Your task to perform on an android device: change the clock display to digital Image 0: 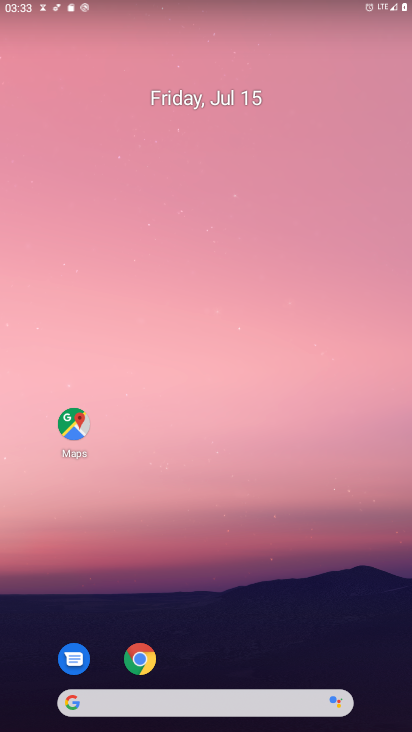
Step 0: drag from (243, 661) to (259, 254)
Your task to perform on an android device: change the clock display to digital Image 1: 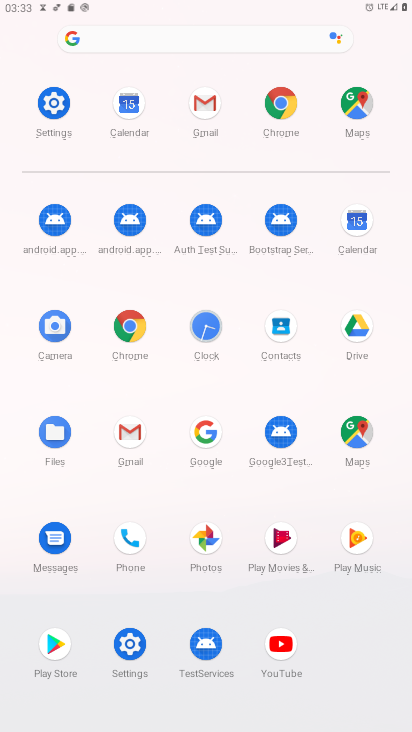
Step 1: click (196, 325)
Your task to perform on an android device: change the clock display to digital Image 2: 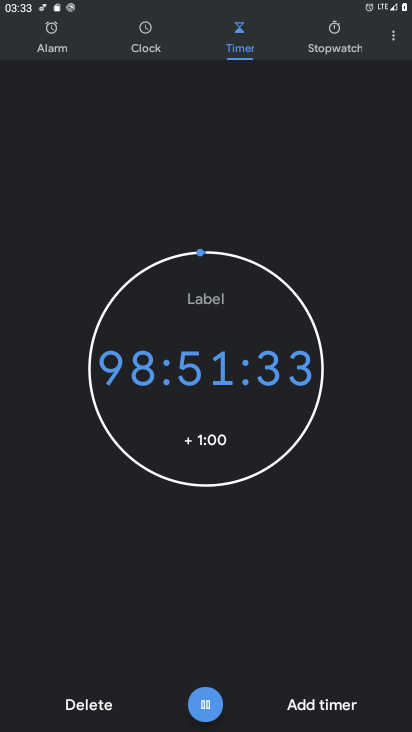
Step 2: click (397, 32)
Your task to perform on an android device: change the clock display to digital Image 3: 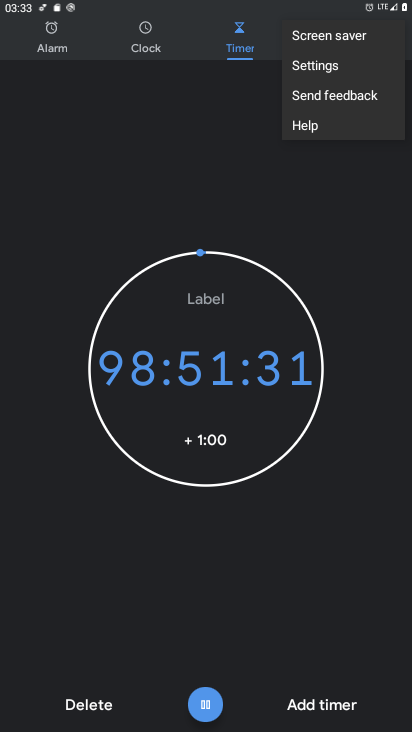
Step 3: click (307, 77)
Your task to perform on an android device: change the clock display to digital Image 4: 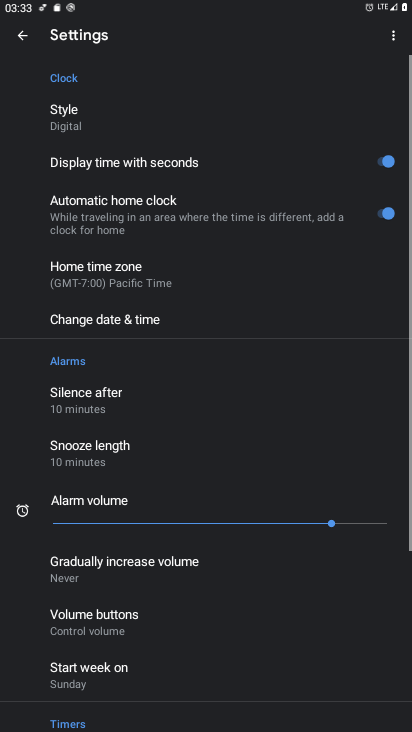
Step 4: click (77, 126)
Your task to perform on an android device: change the clock display to digital Image 5: 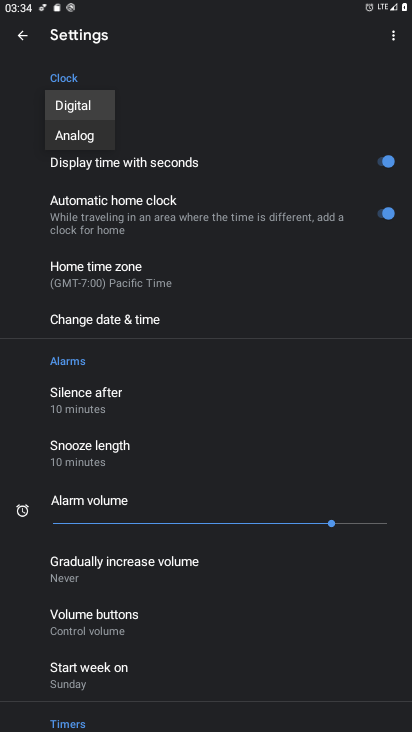
Step 5: click (79, 101)
Your task to perform on an android device: change the clock display to digital Image 6: 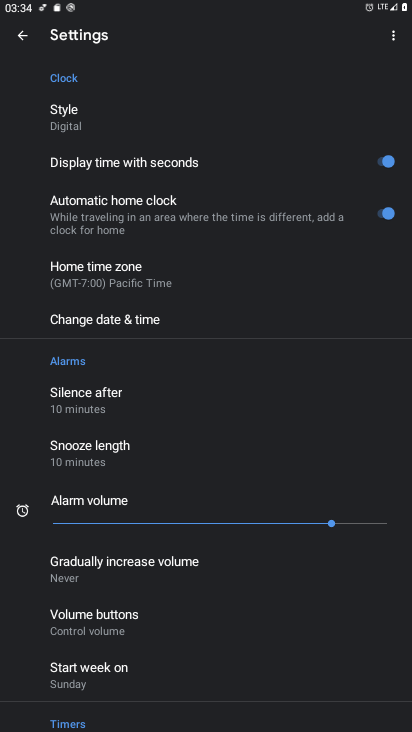
Step 6: task complete